Your task to perform on an android device: Open Yahoo.com Image 0: 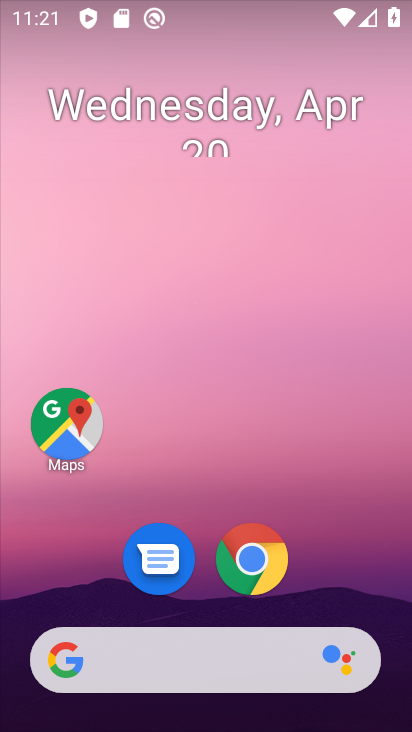
Step 0: press home button
Your task to perform on an android device: Open Yahoo.com Image 1: 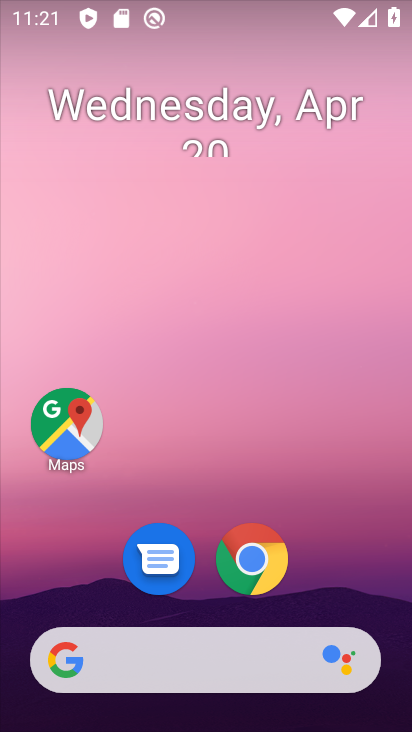
Step 1: click (271, 567)
Your task to perform on an android device: Open Yahoo.com Image 2: 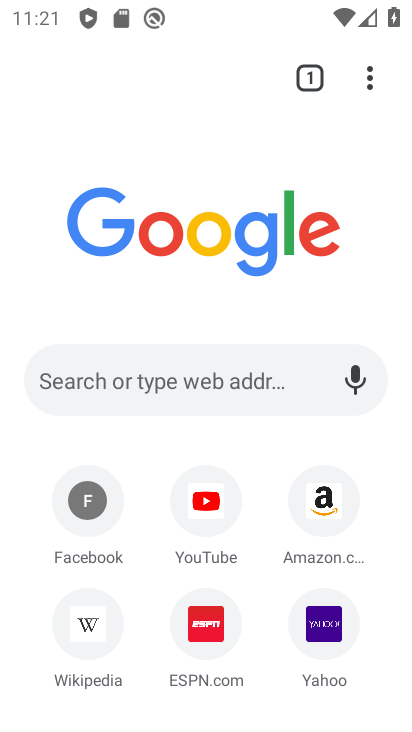
Step 2: click (191, 376)
Your task to perform on an android device: Open Yahoo.com Image 3: 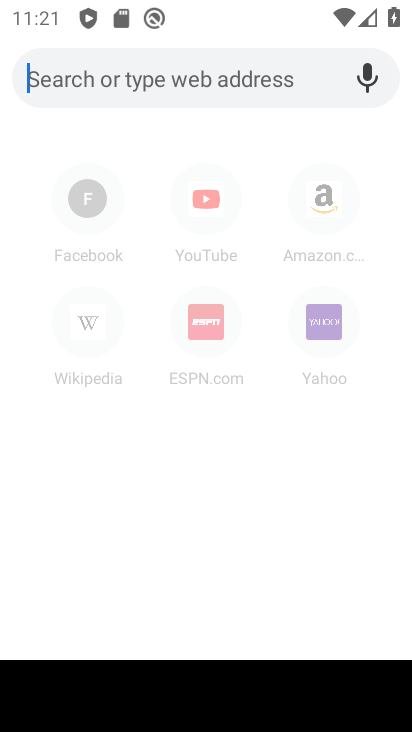
Step 3: click (315, 333)
Your task to perform on an android device: Open Yahoo.com Image 4: 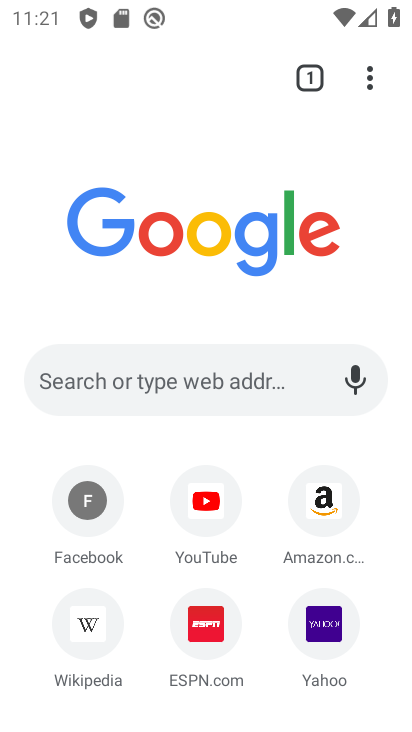
Step 4: click (320, 635)
Your task to perform on an android device: Open Yahoo.com Image 5: 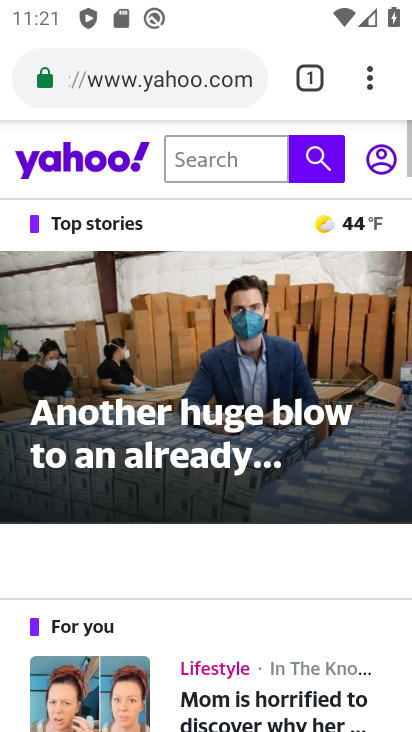
Step 5: task complete